Your task to perform on an android device: Open the calendar and show me this week's events? Image 0: 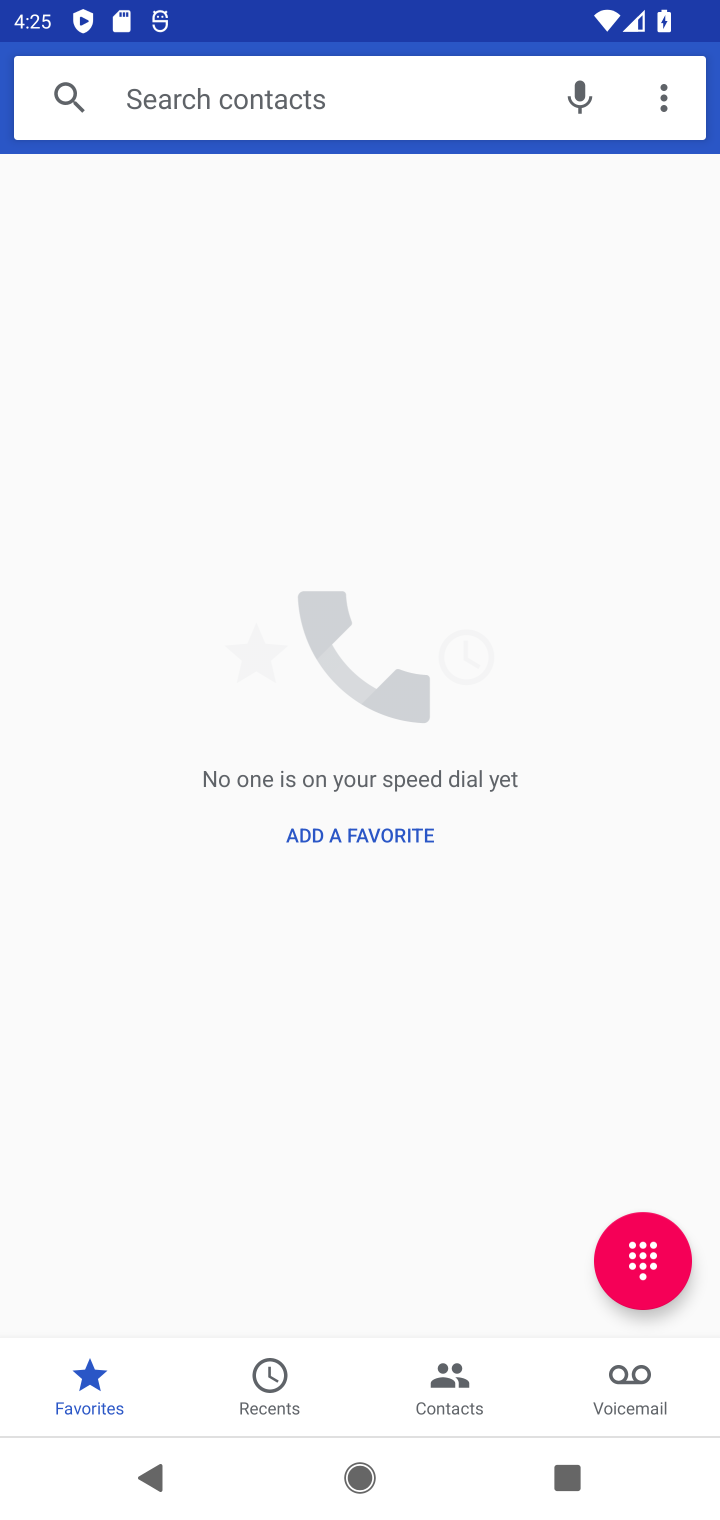
Step 0: press home button
Your task to perform on an android device: Open the calendar and show me this week's events? Image 1: 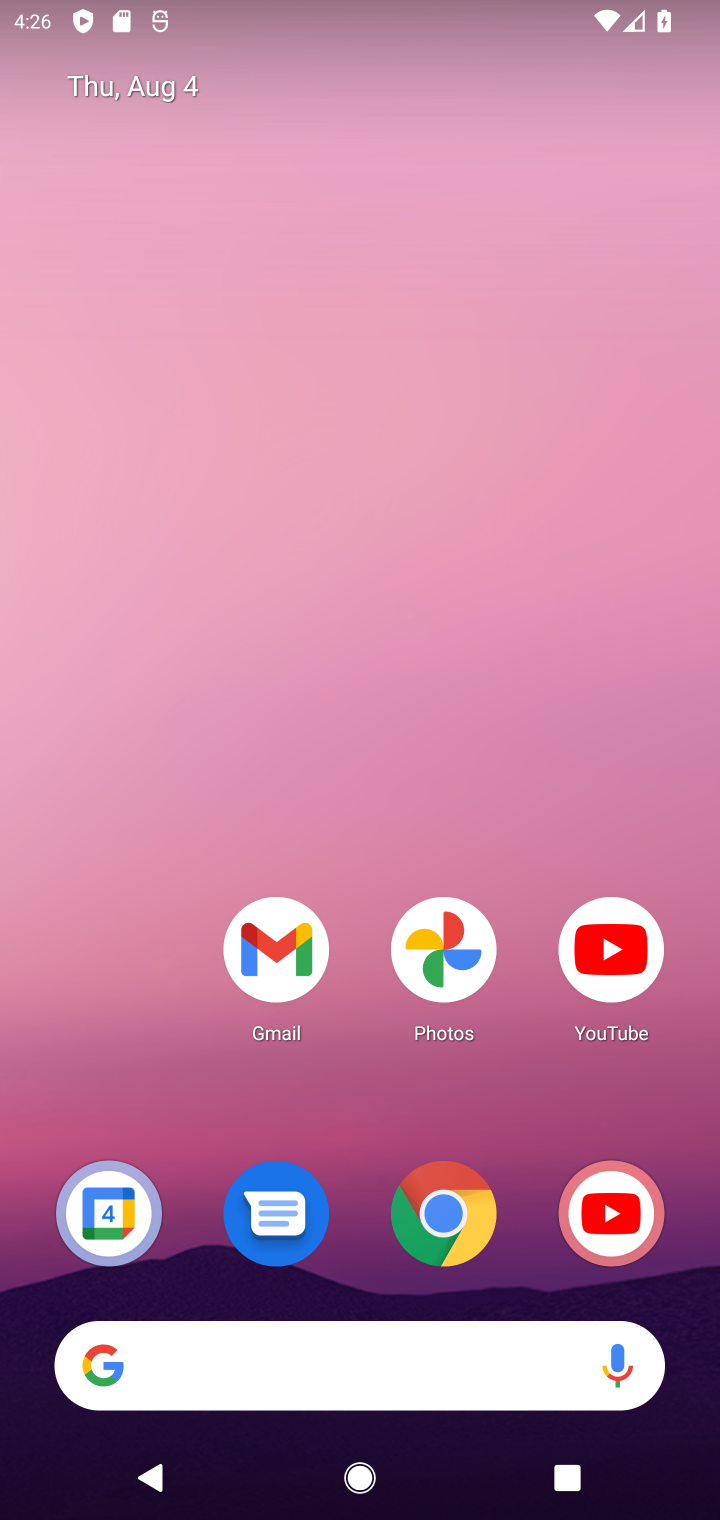
Step 1: drag from (184, 1136) to (223, 315)
Your task to perform on an android device: Open the calendar and show me this week's events? Image 2: 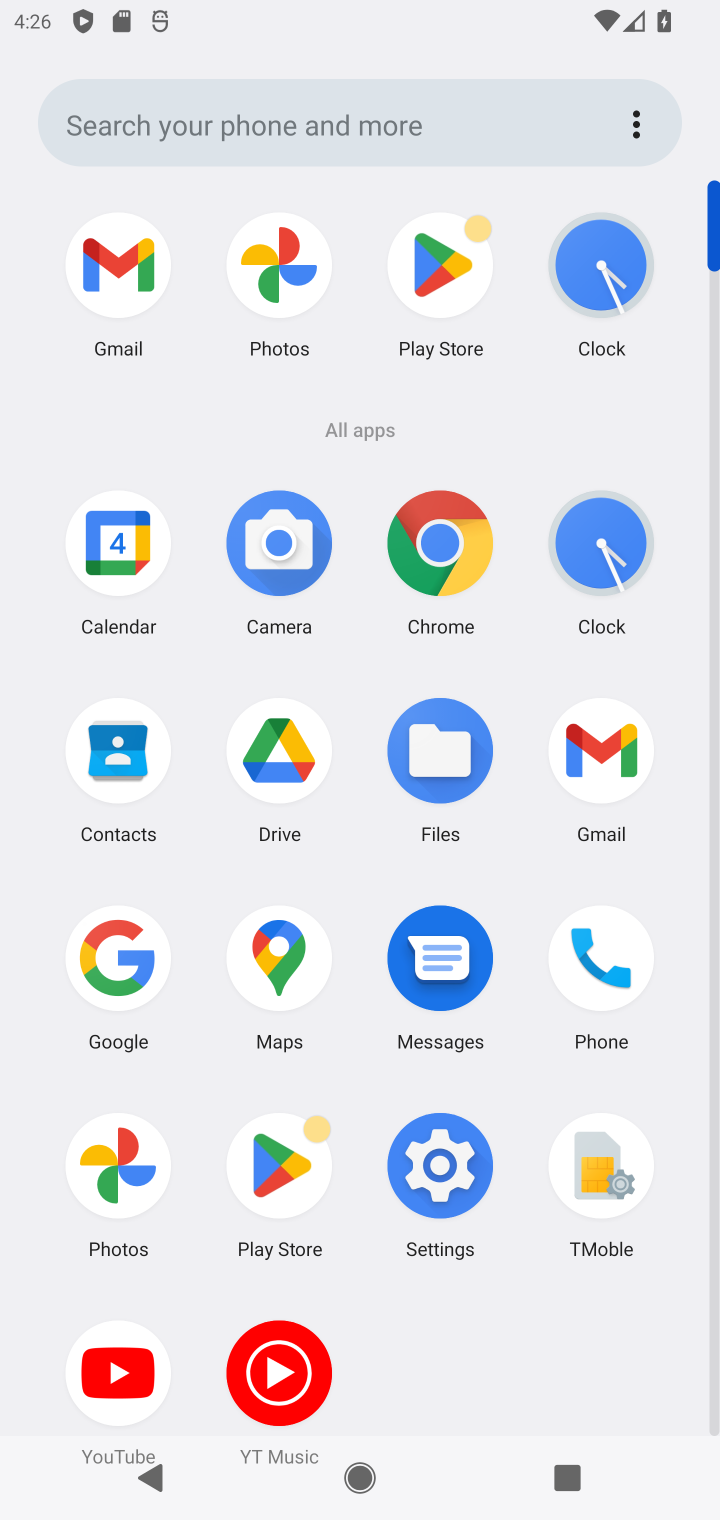
Step 2: click (124, 550)
Your task to perform on an android device: Open the calendar and show me this week's events? Image 3: 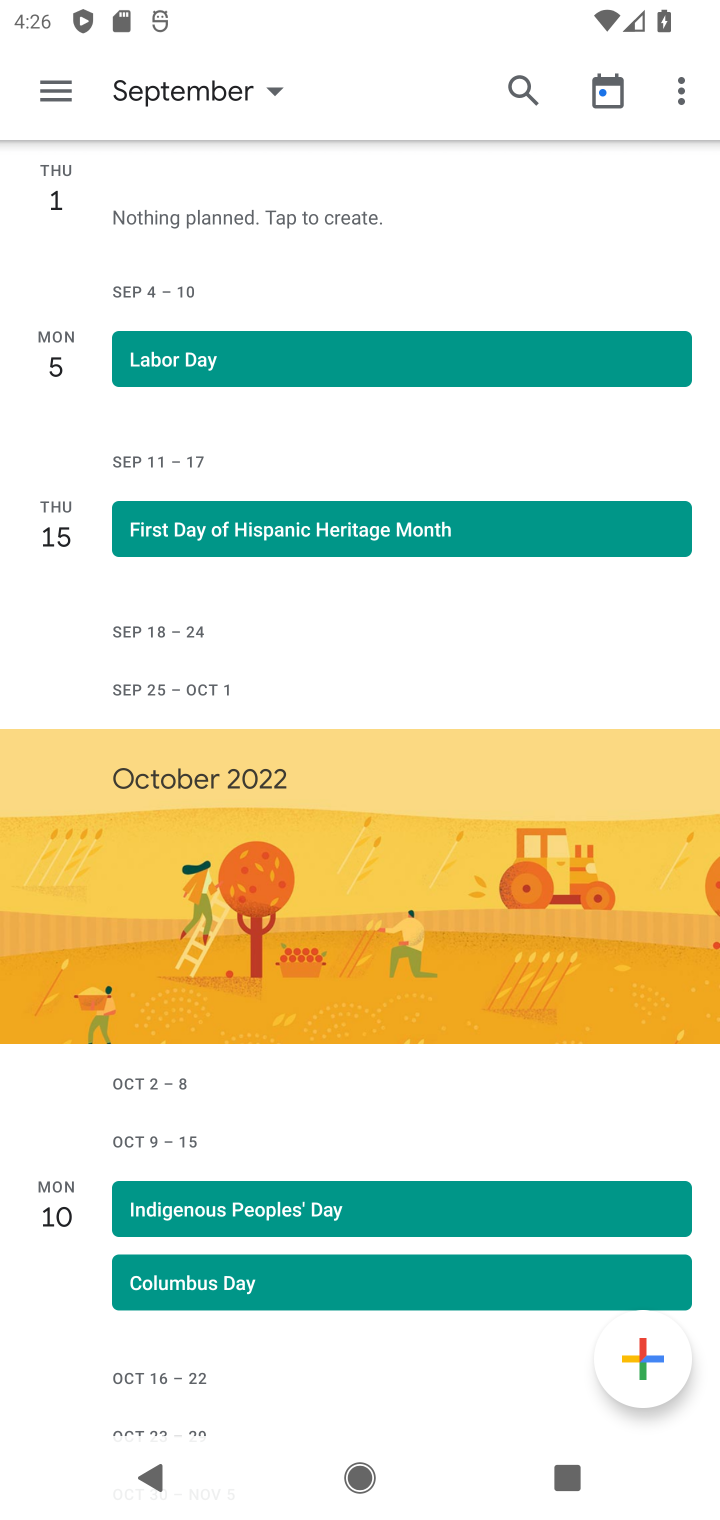
Step 3: task complete